Your task to perform on an android device: toggle location history Image 0: 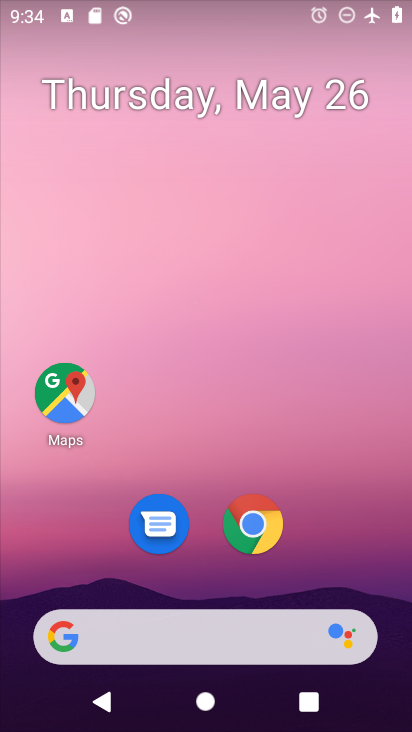
Step 0: drag from (315, 532) to (328, 45)
Your task to perform on an android device: toggle location history Image 1: 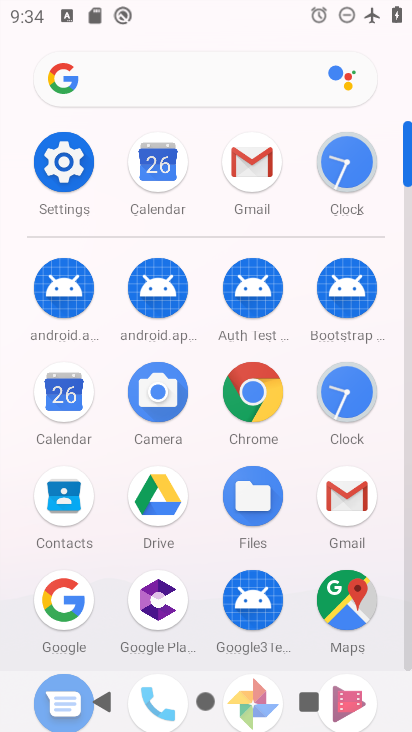
Step 1: click (76, 156)
Your task to perform on an android device: toggle location history Image 2: 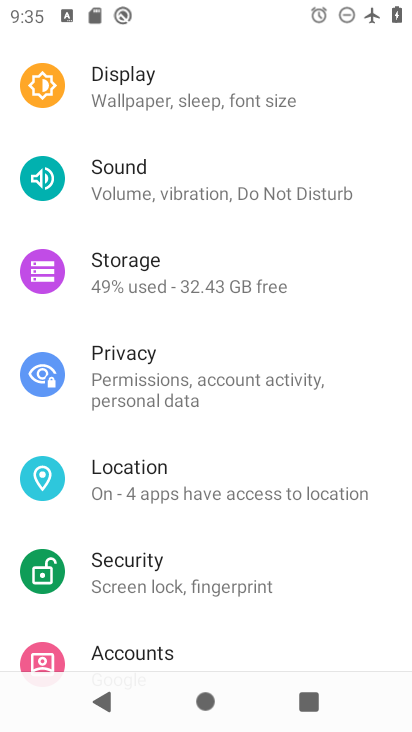
Step 2: click (205, 480)
Your task to perform on an android device: toggle location history Image 3: 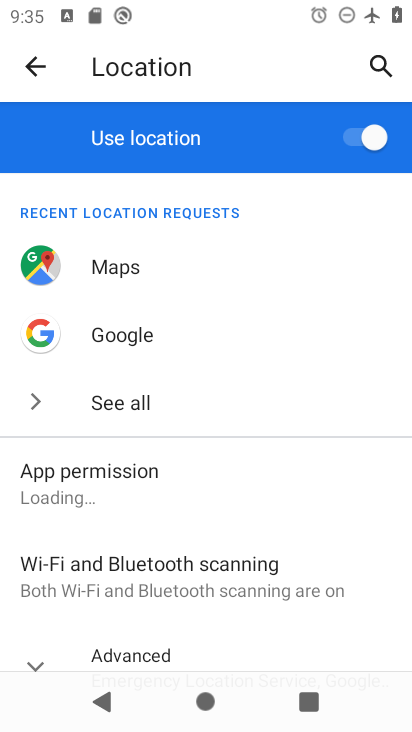
Step 3: drag from (235, 512) to (243, 166)
Your task to perform on an android device: toggle location history Image 4: 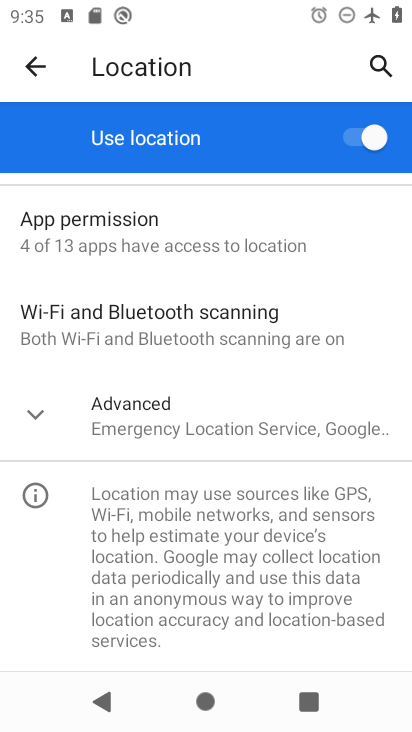
Step 4: click (41, 414)
Your task to perform on an android device: toggle location history Image 5: 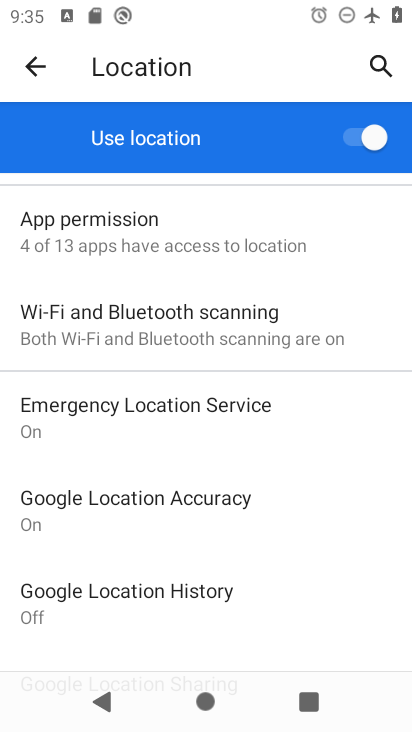
Step 5: click (182, 589)
Your task to perform on an android device: toggle location history Image 6: 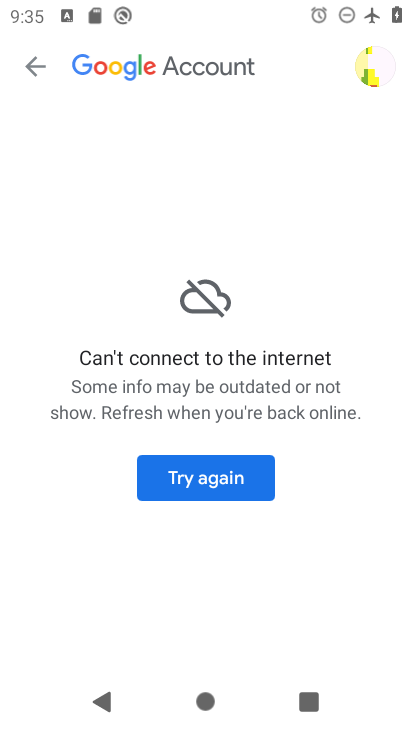
Step 6: task complete